Your task to perform on an android device: find photos in the google photos app Image 0: 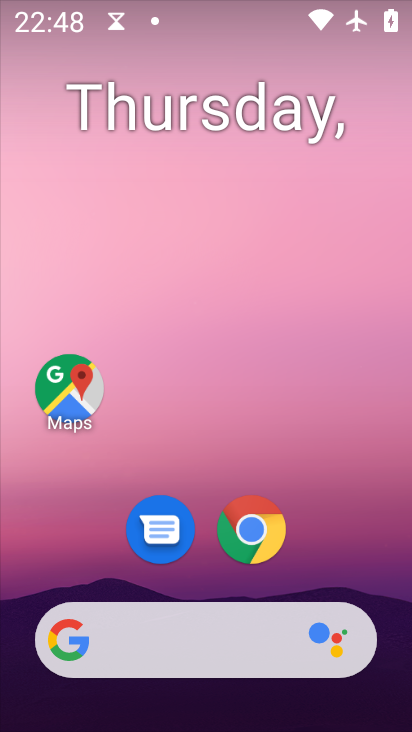
Step 0: drag from (194, 564) to (402, 339)
Your task to perform on an android device: find photos in the google photos app Image 1: 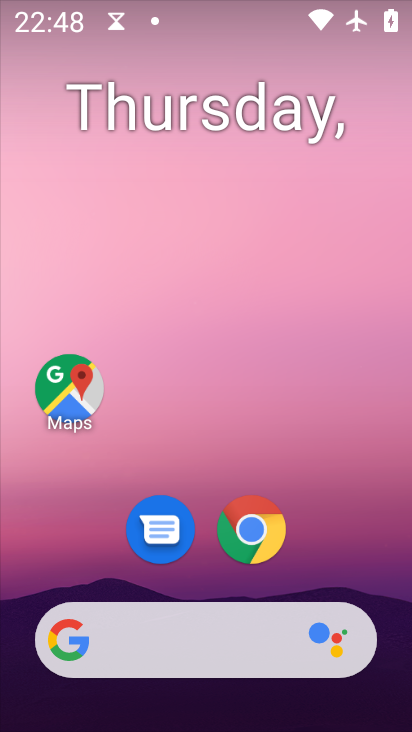
Step 1: drag from (198, 582) to (241, 27)
Your task to perform on an android device: find photos in the google photos app Image 2: 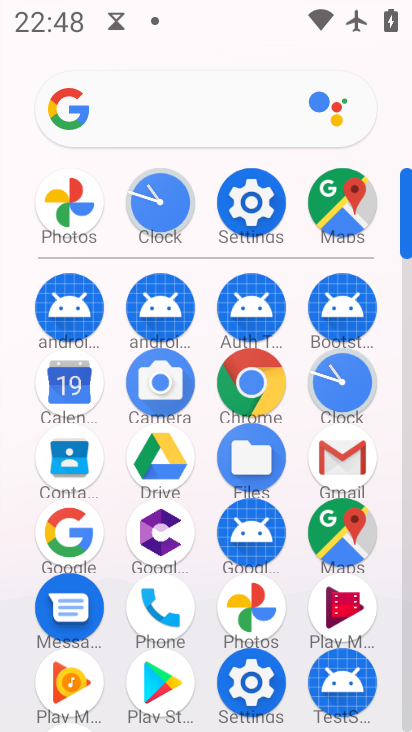
Step 2: click (56, 206)
Your task to perform on an android device: find photos in the google photos app Image 3: 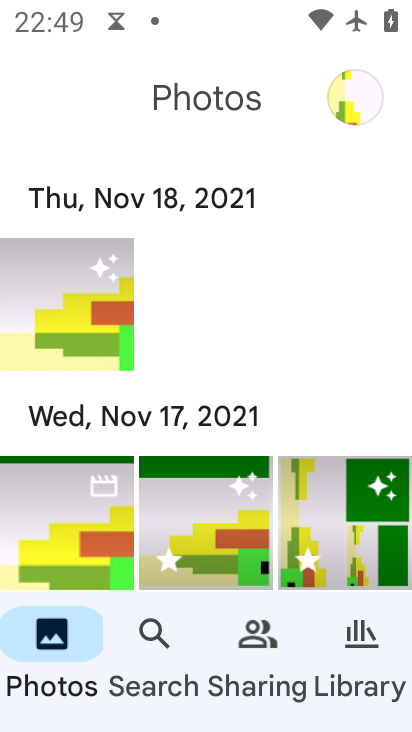
Step 3: task complete